Your task to perform on an android device: Open wifi settings Image 0: 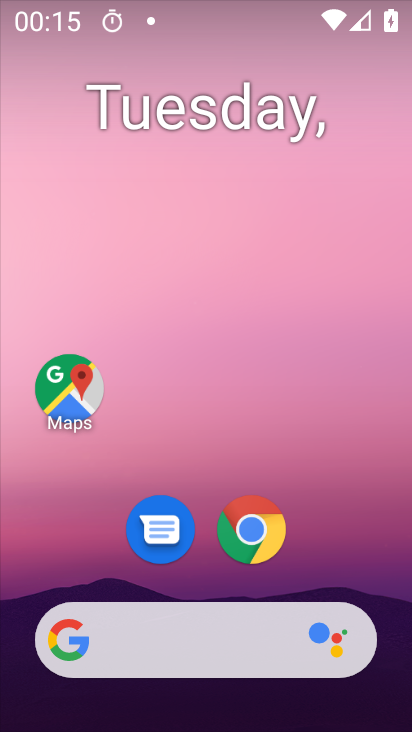
Step 0: press home button
Your task to perform on an android device: Open wifi settings Image 1: 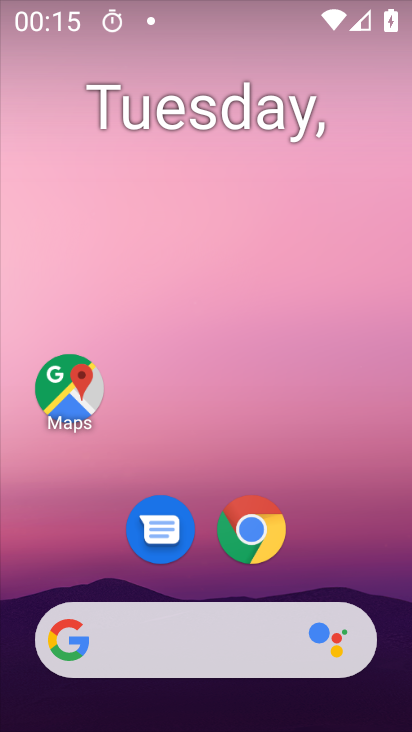
Step 1: drag from (330, 162) to (297, 617)
Your task to perform on an android device: Open wifi settings Image 2: 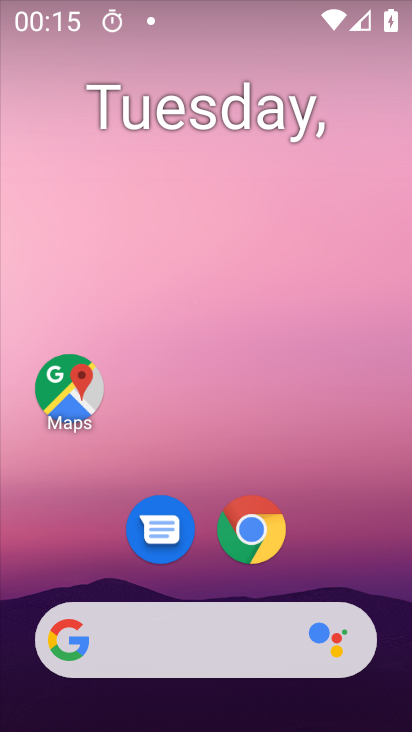
Step 2: drag from (342, 3) to (343, 532)
Your task to perform on an android device: Open wifi settings Image 3: 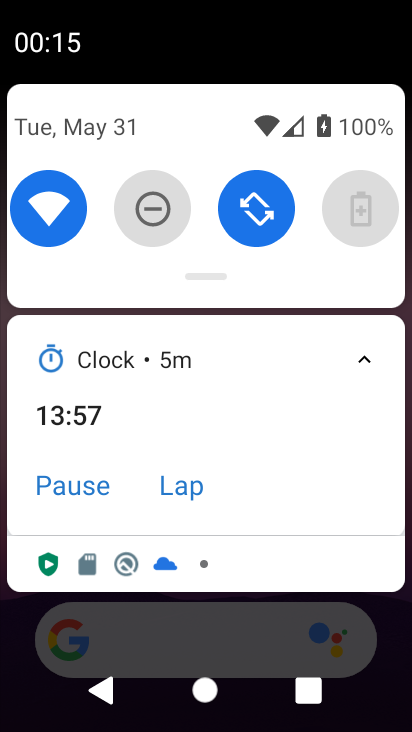
Step 3: click (46, 208)
Your task to perform on an android device: Open wifi settings Image 4: 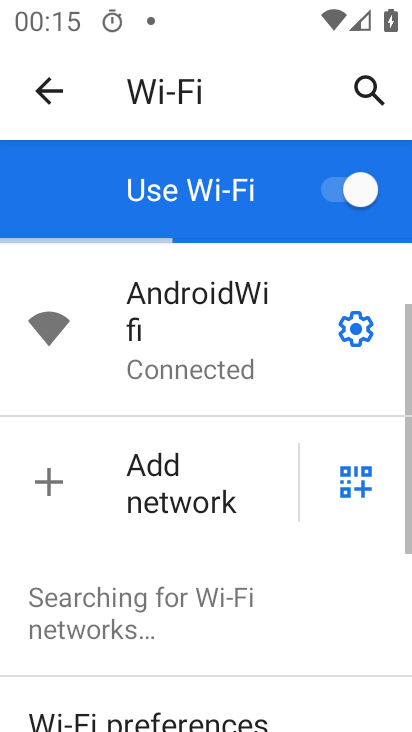
Step 4: task complete